Your task to perform on an android device: Open Wikipedia Image 0: 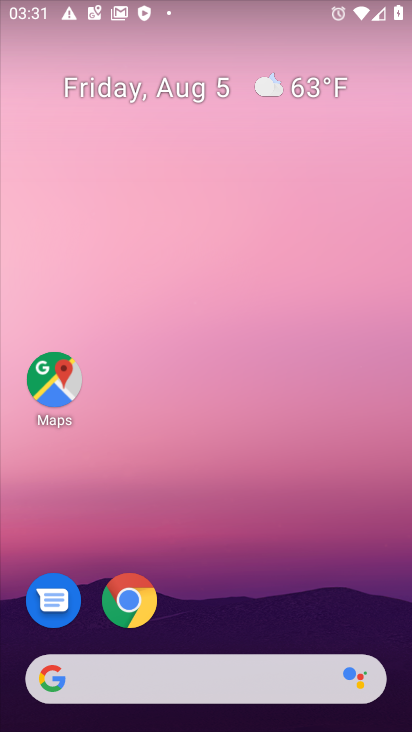
Step 0: click (128, 606)
Your task to perform on an android device: Open Wikipedia Image 1: 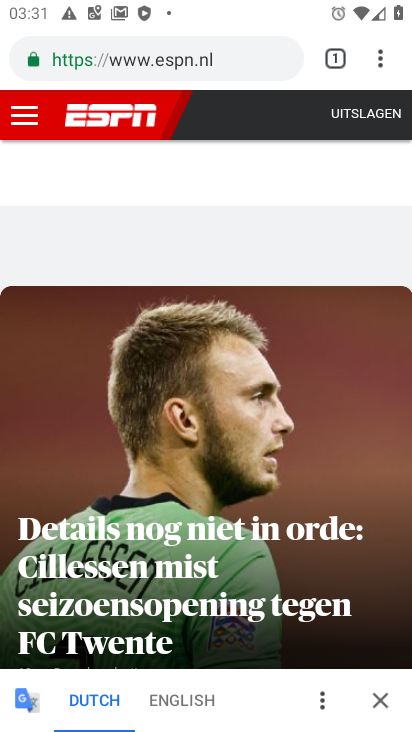
Step 1: click (246, 63)
Your task to perform on an android device: Open Wikipedia Image 2: 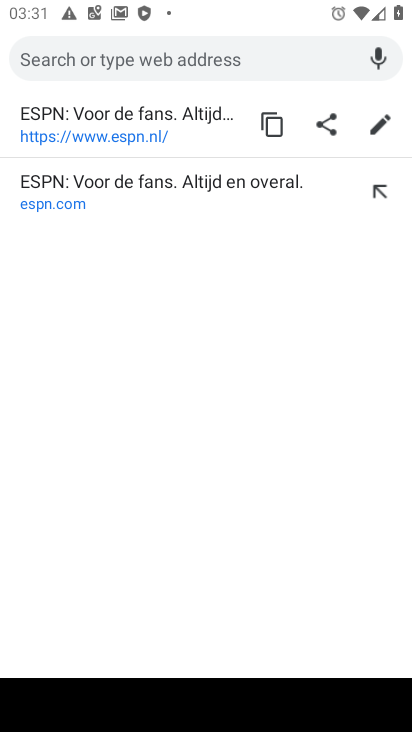
Step 2: type "Wikipedia"
Your task to perform on an android device: Open Wikipedia Image 3: 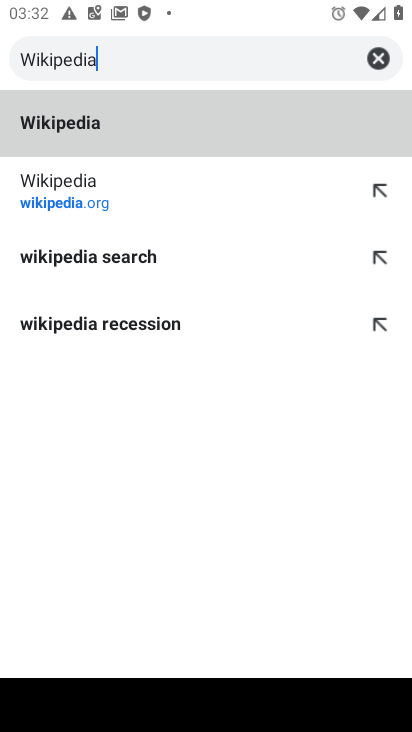
Step 3: click (62, 199)
Your task to perform on an android device: Open Wikipedia Image 4: 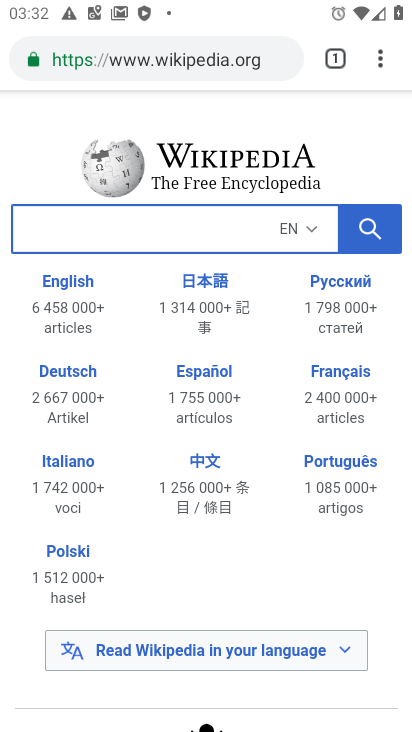
Step 4: task complete